Your task to perform on an android device: turn on the 12-hour format for clock Image 0: 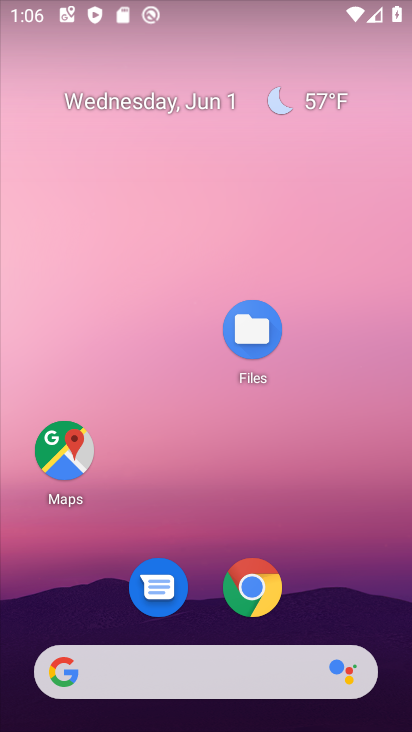
Step 0: press home button
Your task to perform on an android device: turn on the 12-hour format for clock Image 1: 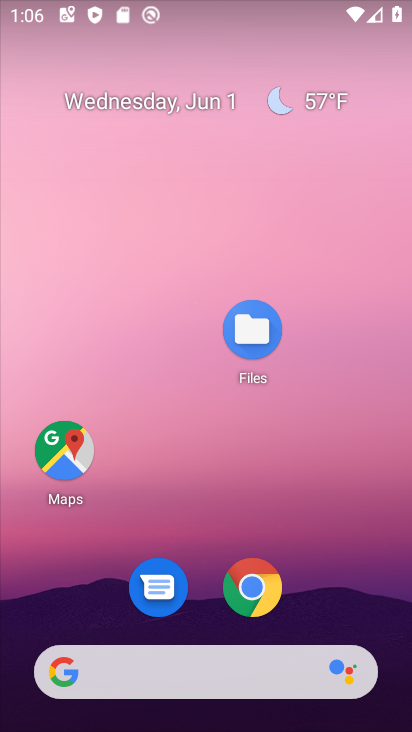
Step 1: drag from (326, 615) to (328, 108)
Your task to perform on an android device: turn on the 12-hour format for clock Image 2: 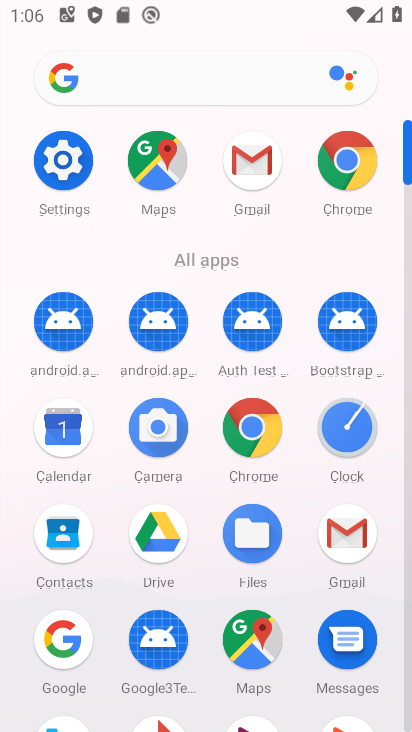
Step 2: click (351, 456)
Your task to perform on an android device: turn on the 12-hour format for clock Image 3: 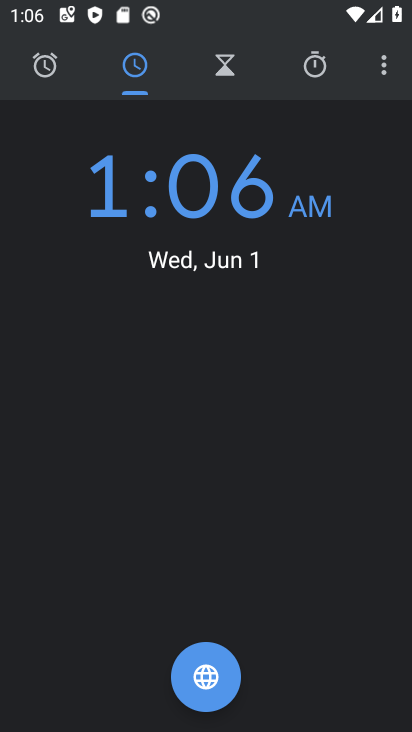
Step 3: click (379, 67)
Your task to perform on an android device: turn on the 12-hour format for clock Image 4: 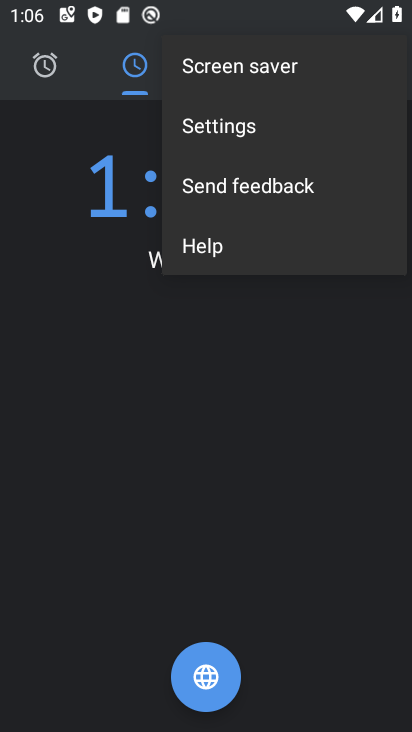
Step 4: click (203, 129)
Your task to perform on an android device: turn on the 12-hour format for clock Image 5: 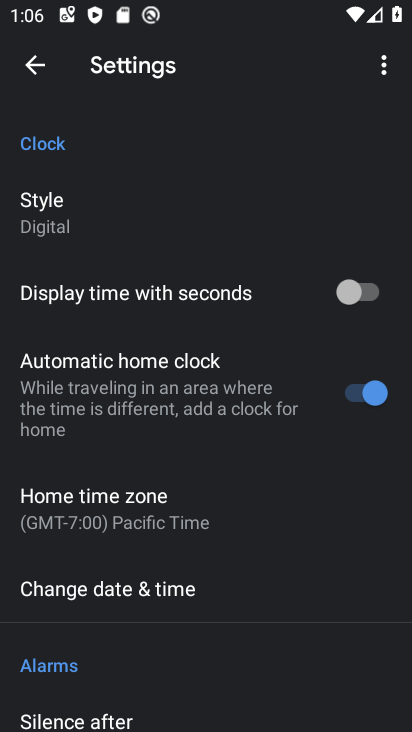
Step 5: click (162, 588)
Your task to perform on an android device: turn on the 12-hour format for clock Image 6: 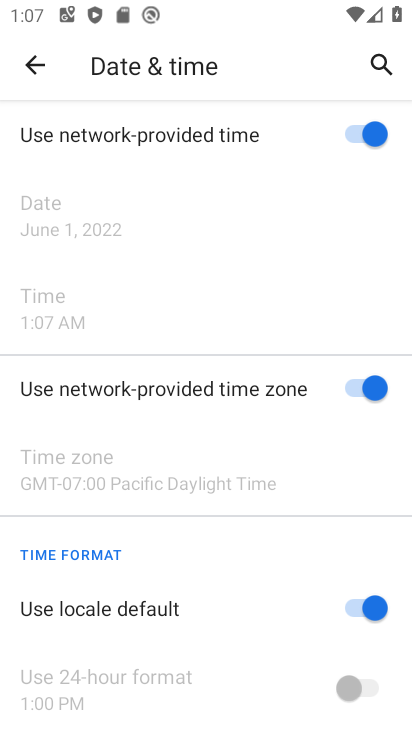
Step 6: drag from (205, 549) to (219, 300)
Your task to perform on an android device: turn on the 12-hour format for clock Image 7: 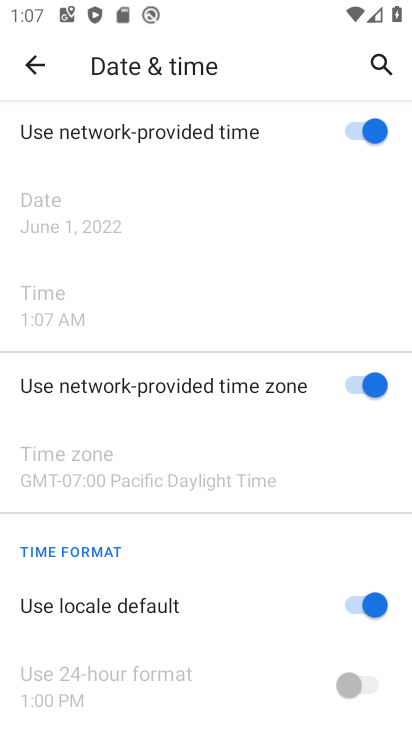
Step 7: click (246, 602)
Your task to perform on an android device: turn on the 12-hour format for clock Image 8: 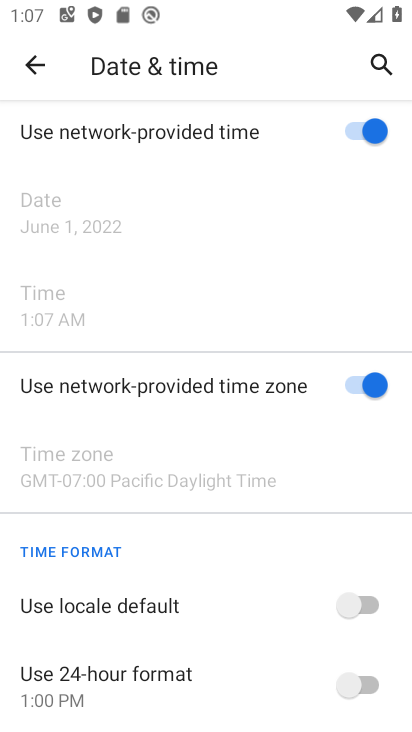
Step 8: click (223, 673)
Your task to perform on an android device: turn on the 12-hour format for clock Image 9: 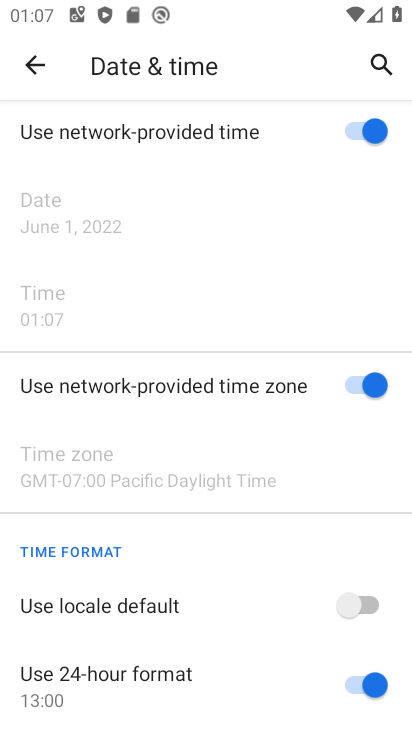
Step 9: task complete